Your task to perform on an android device: View the shopping cart on target.com. Add "logitech g pro" to the cart on target.com, then select checkout. Image 0: 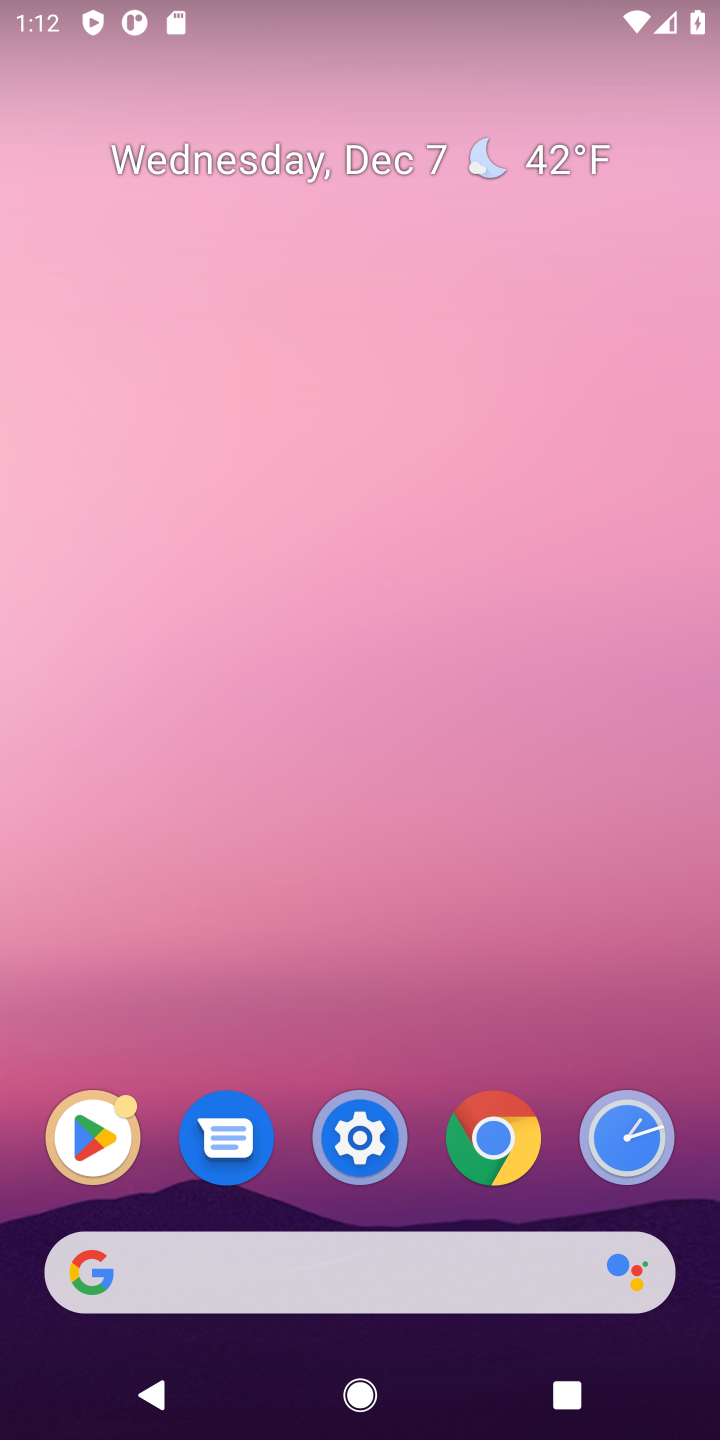
Step 0: click (400, 1276)
Your task to perform on an android device: View the shopping cart on target.com. Add "logitech g pro" to the cart on target.com, then select checkout. Image 1: 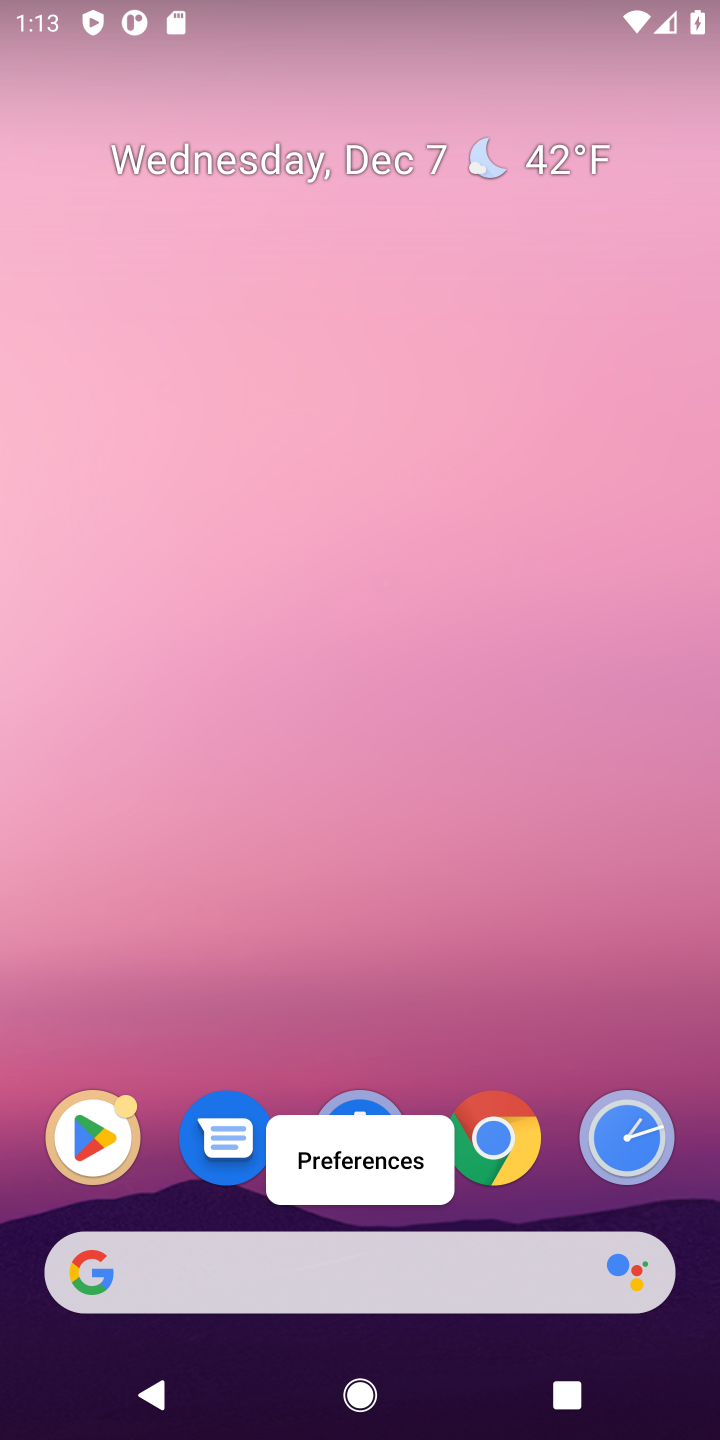
Step 1: type "target"
Your task to perform on an android device: View the shopping cart on target.com. Add "logitech g pro" to the cart on target.com, then select checkout. Image 2: 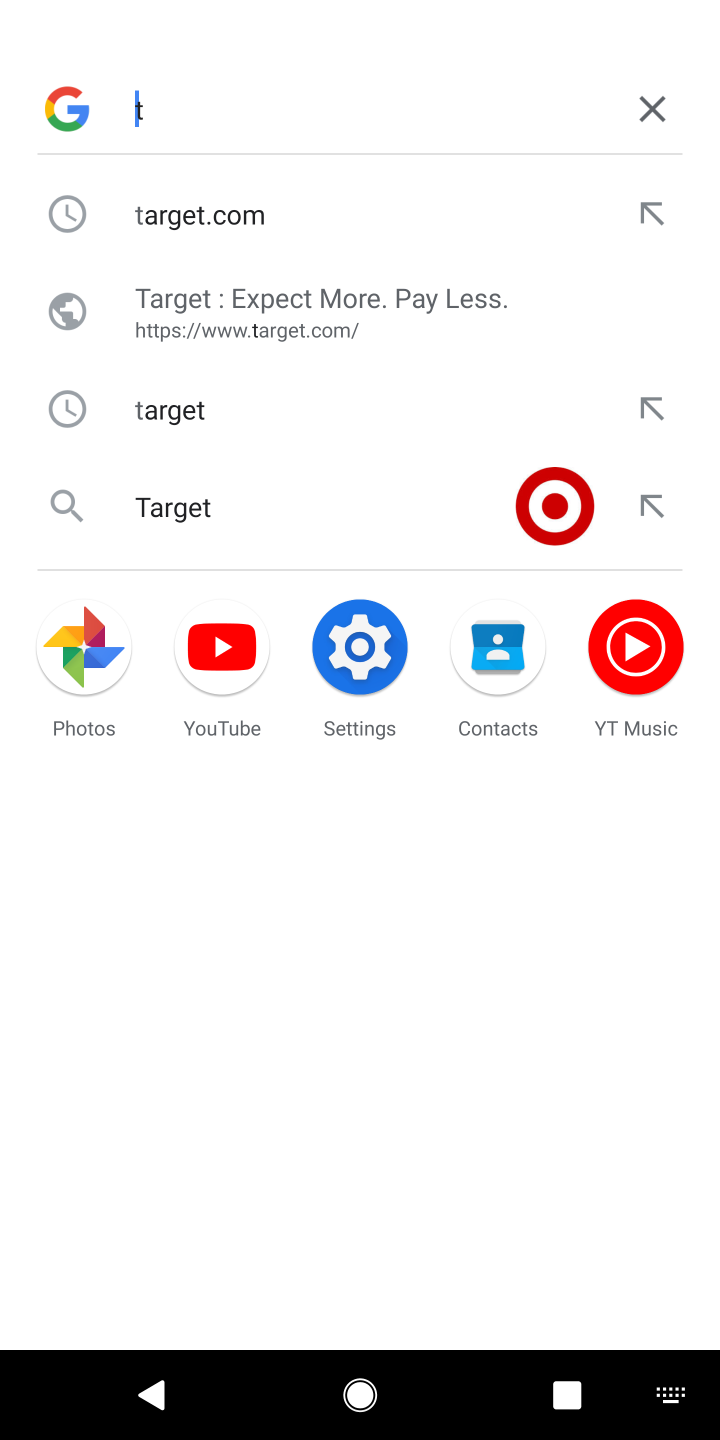
Step 2: click (208, 239)
Your task to perform on an android device: View the shopping cart on target.com. Add "logitech g pro" to the cart on target.com, then select checkout. Image 3: 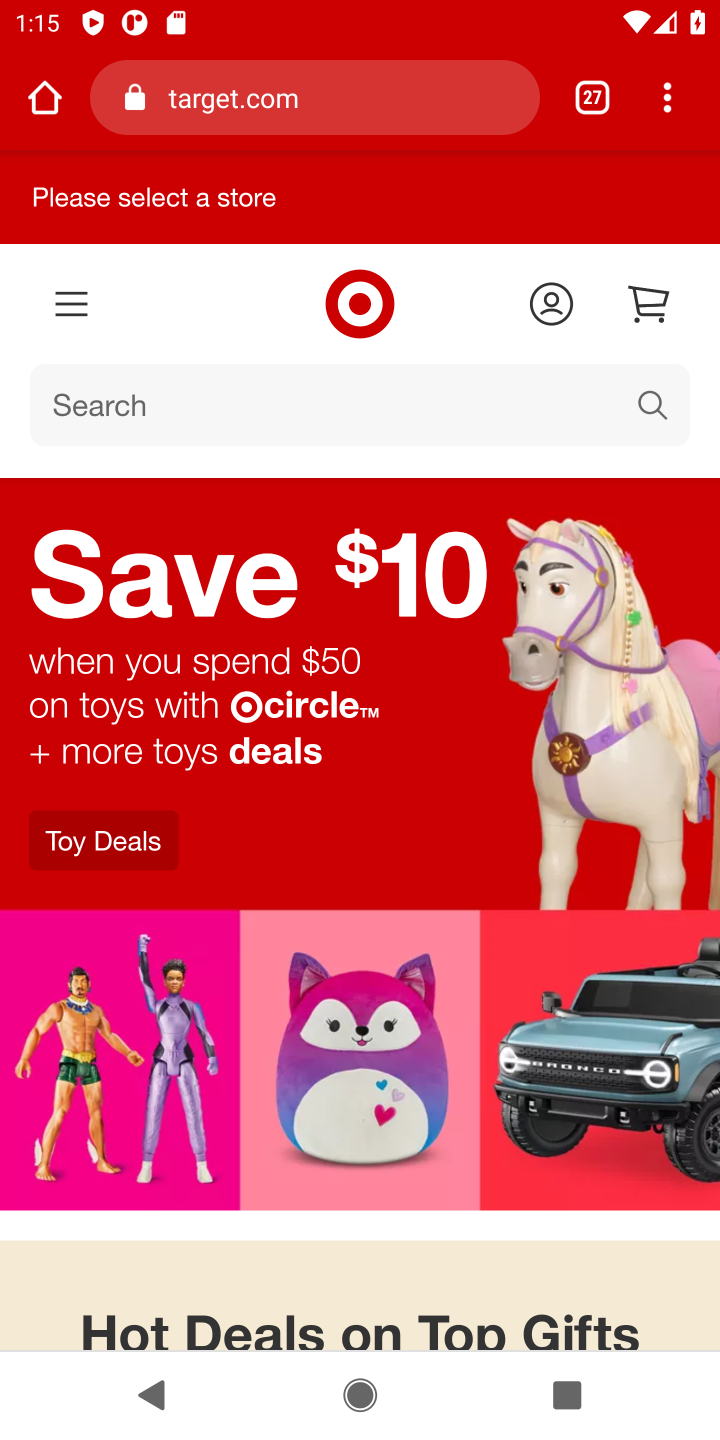
Step 3: click (350, 403)
Your task to perform on an android device: View the shopping cart on target.com. Add "logitech g pro" to the cart on target.com, then select checkout. Image 4: 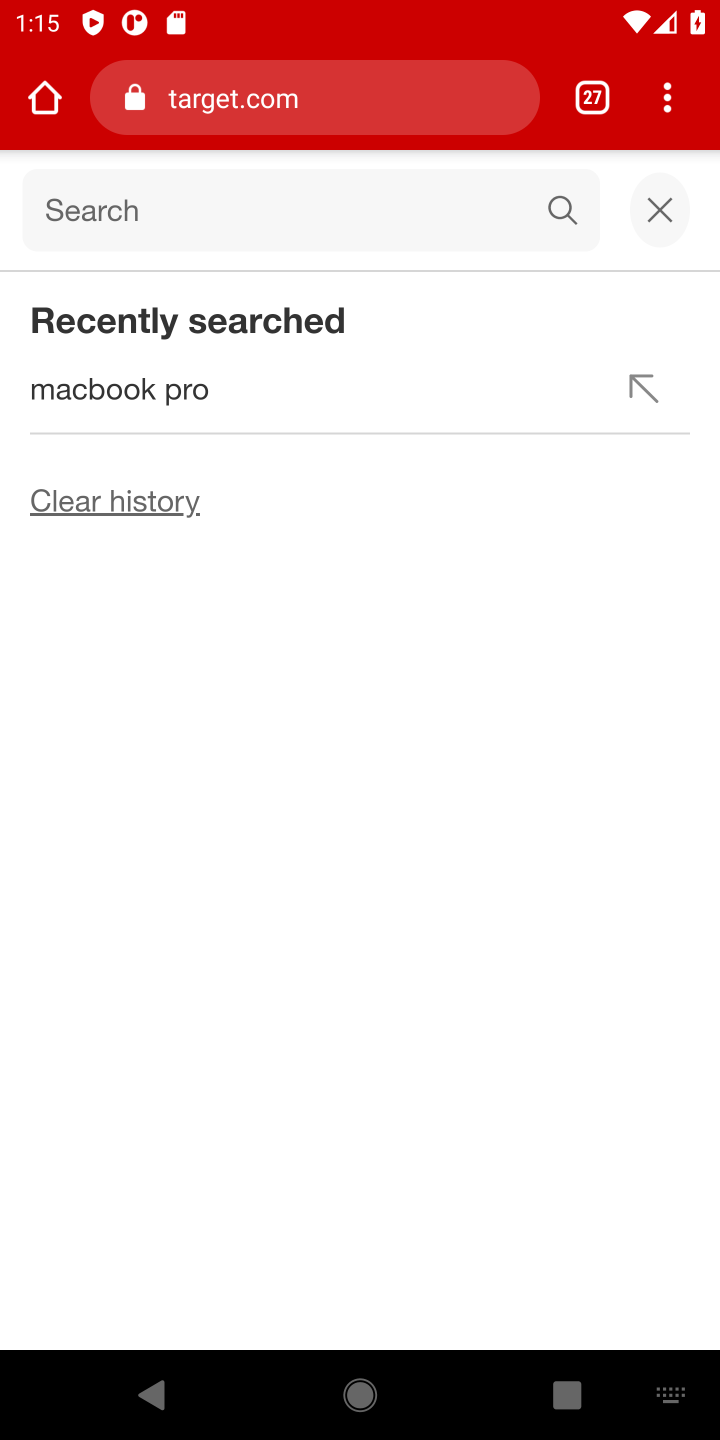
Step 4: type "logitech gpro"
Your task to perform on an android device: View the shopping cart on target.com. Add "logitech g pro" to the cart on target.com, then select checkout. Image 5: 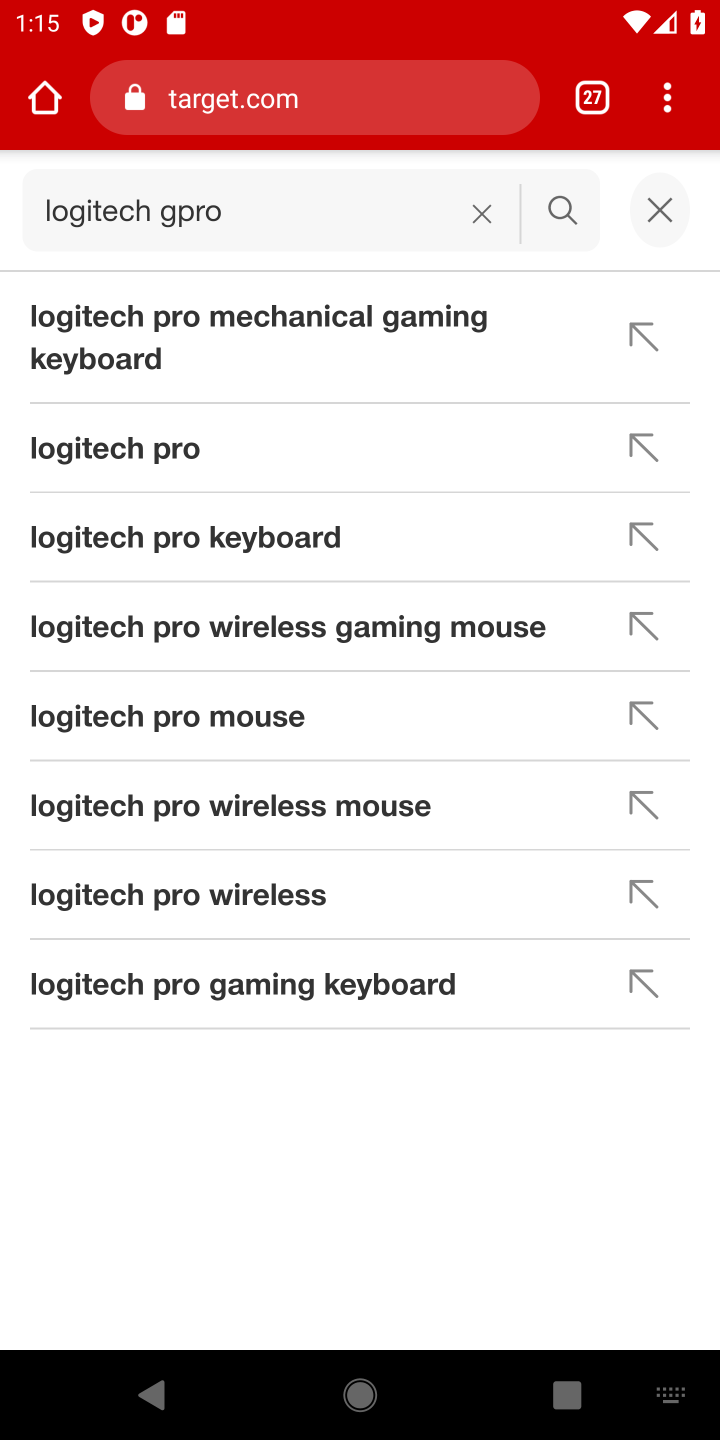
Step 5: click (551, 230)
Your task to perform on an android device: View the shopping cart on target.com. Add "logitech g pro" to the cart on target.com, then select checkout. Image 6: 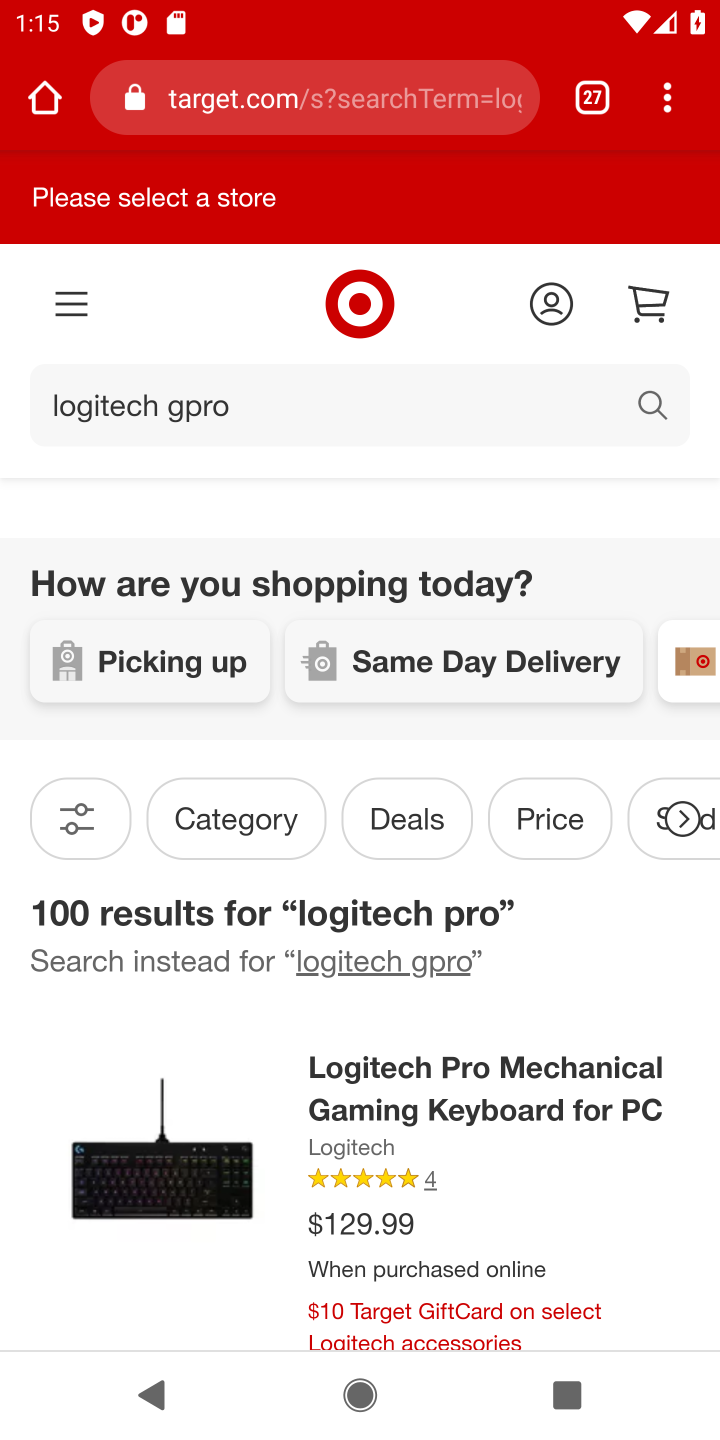
Step 6: drag from (451, 1121) to (471, 456)
Your task to perform on an android device: View the shopping cart on target.com. Add "logitech g pro" to the cart on target.com, then select checkout. Image 7: 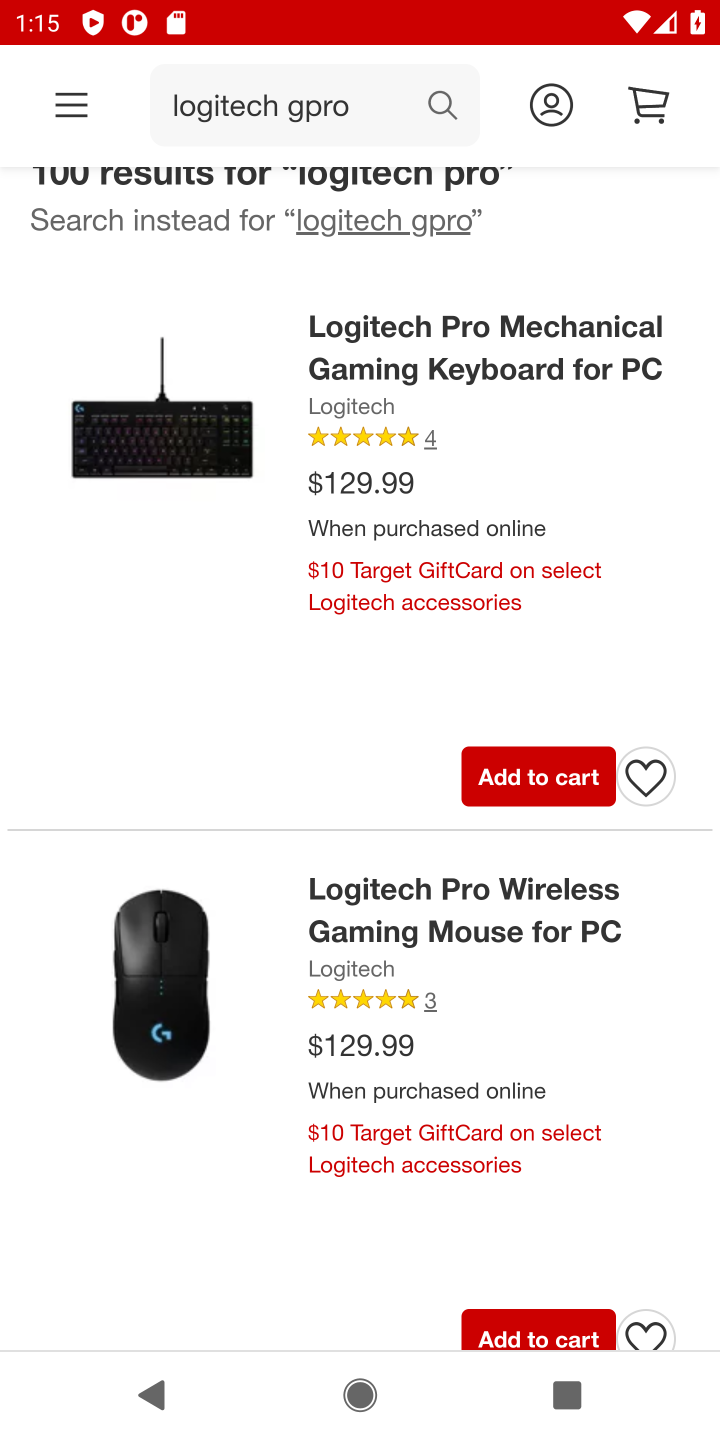
Step 7: click (501, 1298)
Your task to perform on an android device: View the shopping cart on target.com. Add "logitech g pro" to the cart on target.com, then select checkout. Image 8: 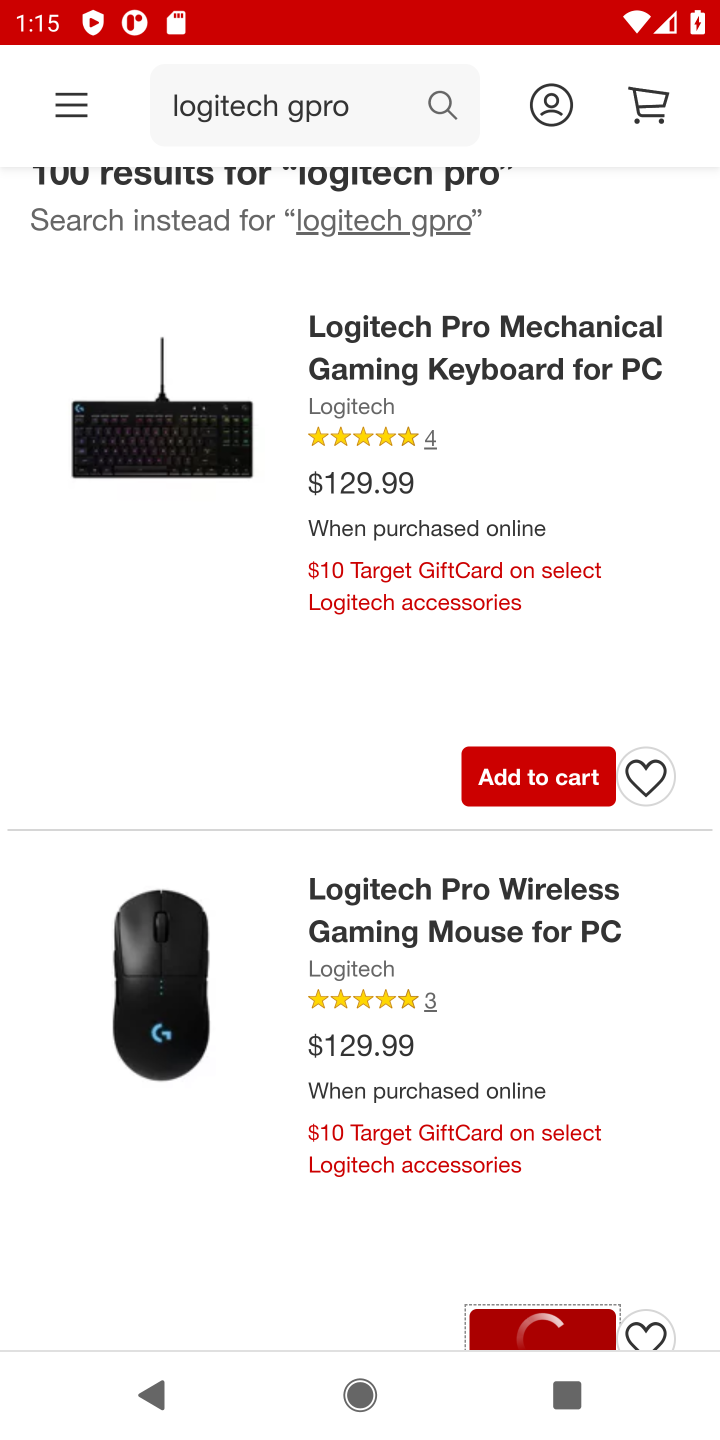
Step 8: task complete